Your task to perform on an android device: change the clock display to show seconds Image 0: 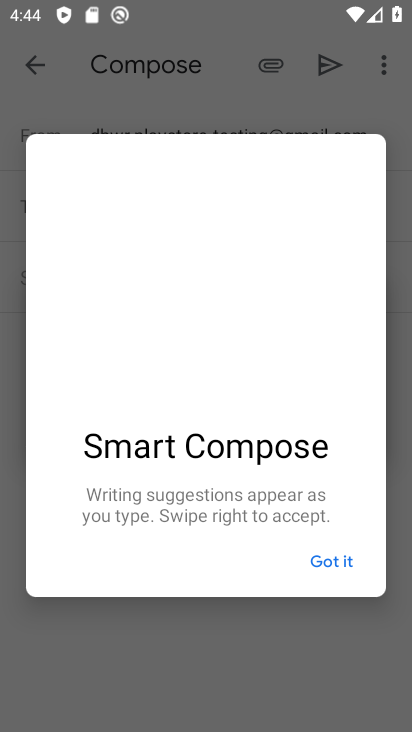
Step 0: press back button
Your task to perform on an android device: change the clock display to show seconds Image 1: 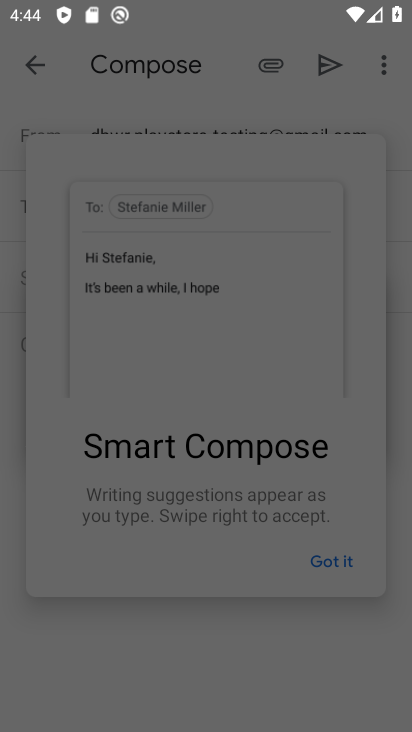
Step 1: press home button
Your task to perform on an android device: change the clock display to show seconds Image 2: 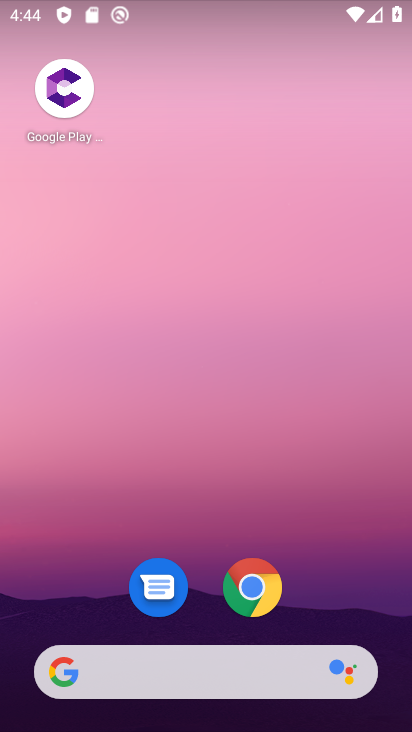
Step 2: drag from (334, 566) to (274, 21)
Your task to perform on an android device: change the clock display to show seconds Image 3: 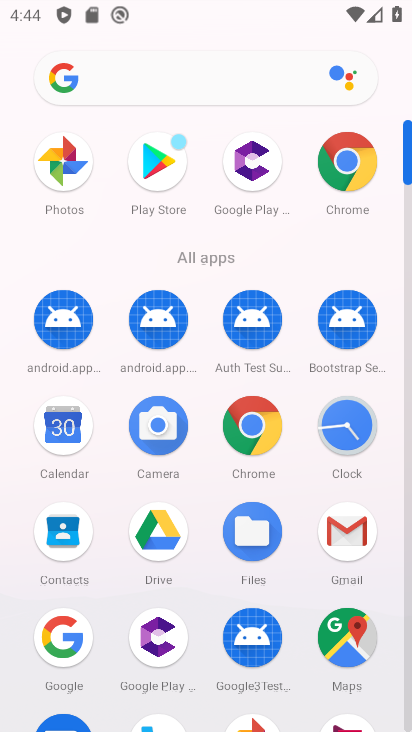
Step 3: drag from (17, 542) to (13, 216)
Your task to perform on an android device: change the clock display to show seconds Image 4: 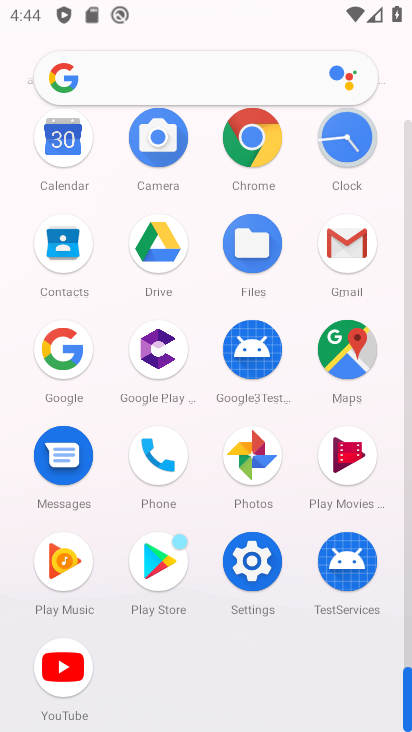
Step 4: click (347, 129)
Your task to perform on an android device: change the clock display to show seconds Image 5: 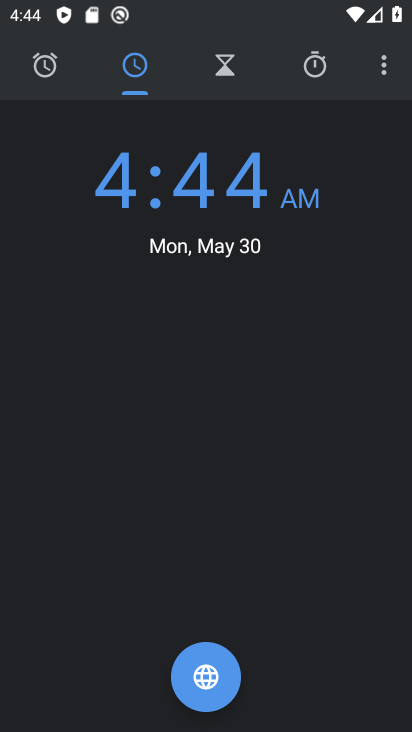
Step 5: click (46, 64)
Your task to perform on an android device: change the clock display to show seconds Image 6: 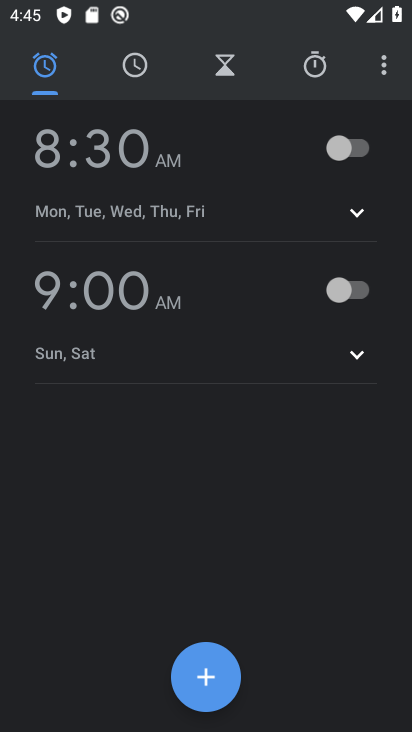
Step 6: drag from (382, 65) to (265, 129)
Your task to perform on an android device: change the clock display to show seconds Image 7: 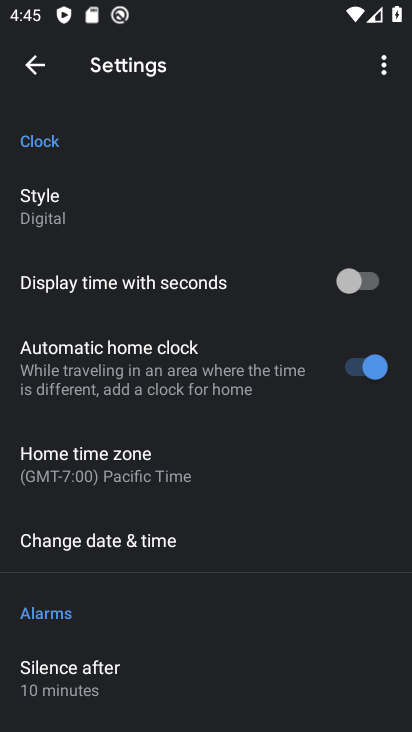
Step 7: drag from (188, 561) to (184, 263)
Your task to perform on an android device: change the clock display to show seconds Image 8: 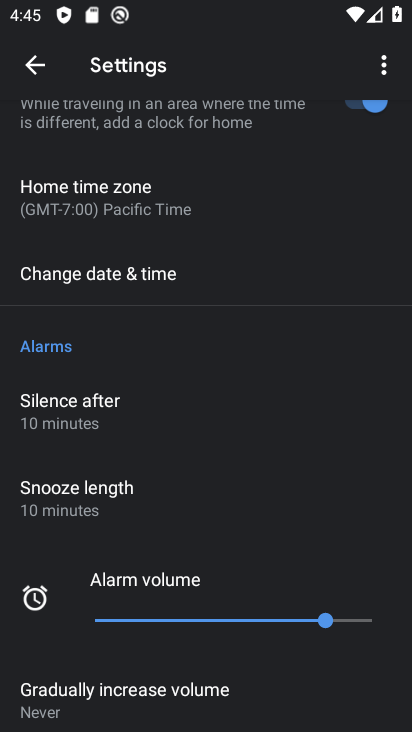
Step 8: drag from (204, 424) to (238, 180)
Your task to perform on an android device: change the clock display to show seconds Image 9: 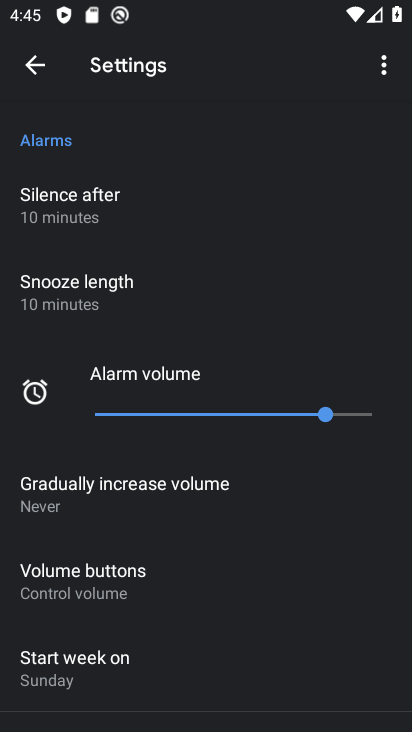
Step 9: drag from (244, 584) to (258, 183)
Your task to perform on an android device: change the clock display to show seconds Image 10: 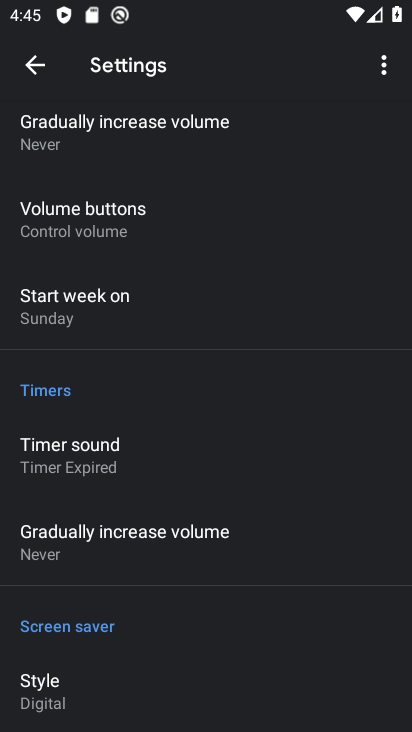
Step 10: drag from (210, 181) to (236, 545)
Your task to perform on an android device: change the clock display to show seconds Image 11: 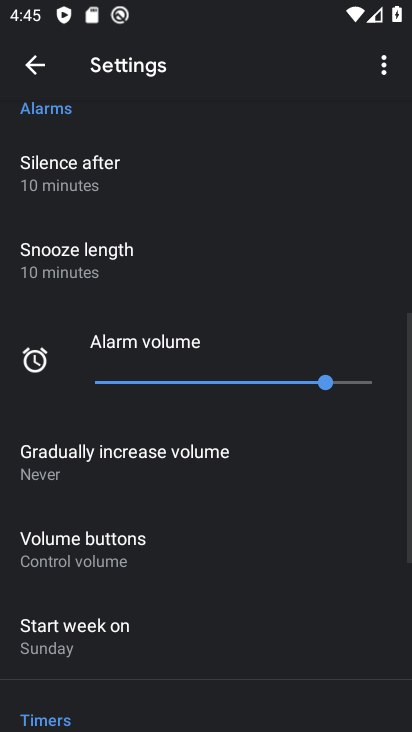
Step 11: drag from (234, 209) to (236, 614)
Your task to perform on an android device: change the clock display to show seconds Image 12: 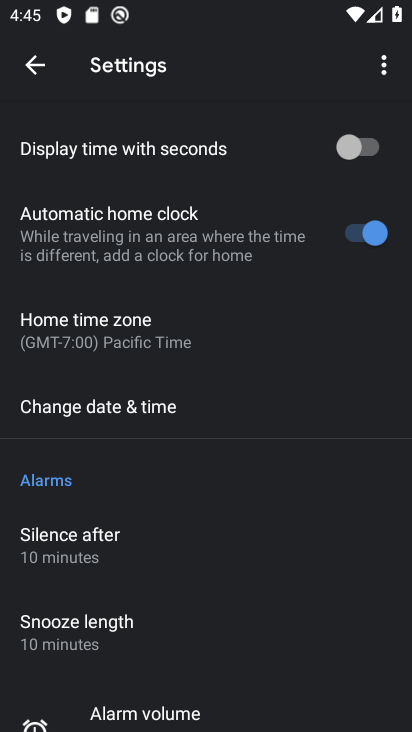
Step 12: drag from (232, 267) to (253, 497)
Your task to perform on an android device: change the clock display to show seconds Image 13: 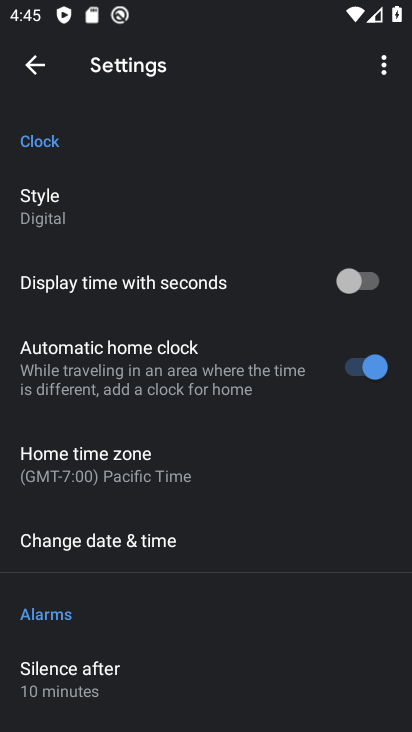
Step 13: click (361, 282)
Your task to perform on an android device: change the clock display to show seconds Image 14: 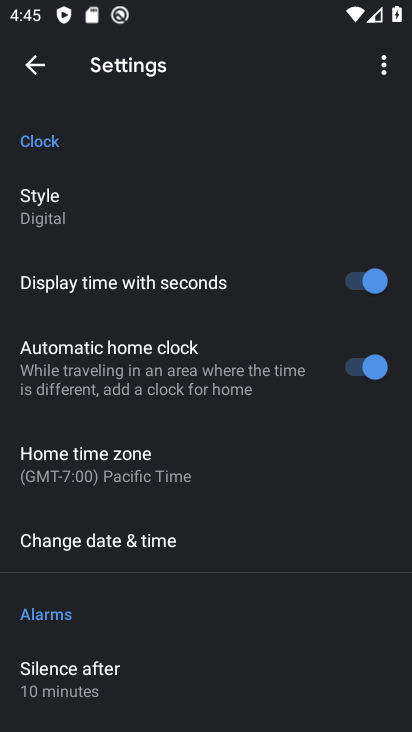
Step 14: task complete